Your task to perform on an android device: turn on data saver in the chrome app Image 0: 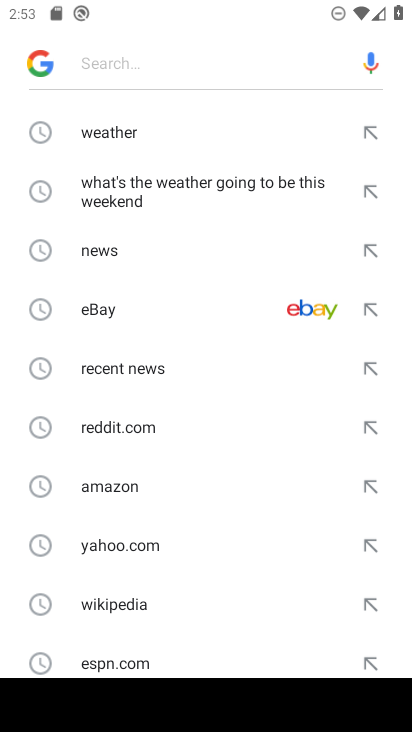
Step 0: press home button
Your task to perform on an android device: turn on data saver in the chrome app Image 1: 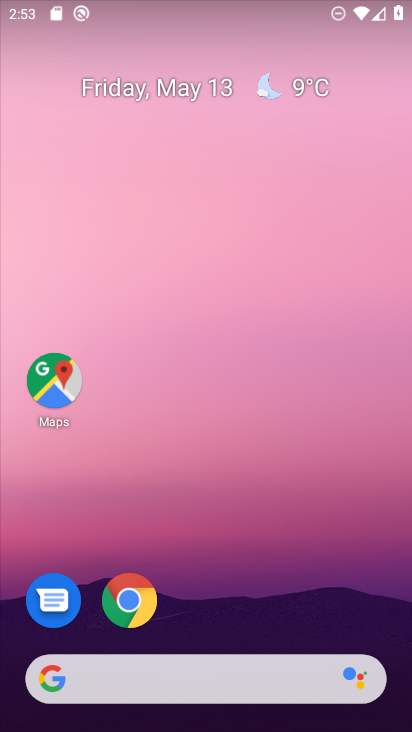
Step 1: click (140, 590)
Your task to perform on an android device: turn on data saver in the chrome app Image 2: 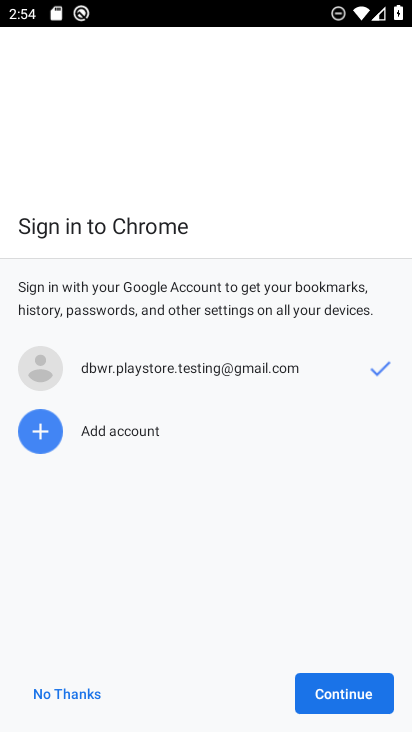
Step 2: click (332, 693)
Your task to perform on an android device: turn on data saver in the chrome app Image 3: 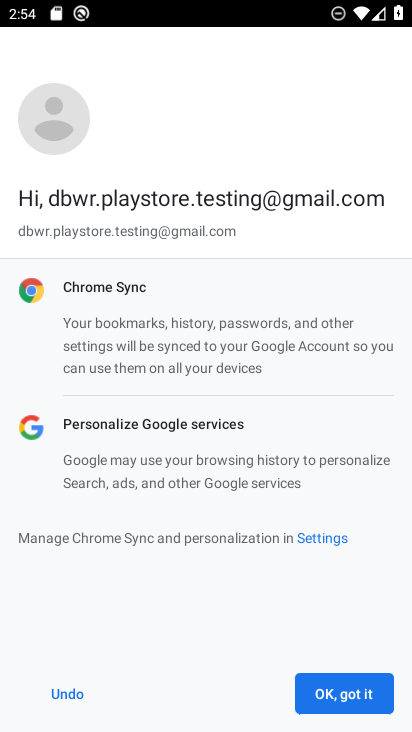
Step 3: click (330, 694)
Your task to perform on an android device: turn on data saver in the chrome app Image 4: 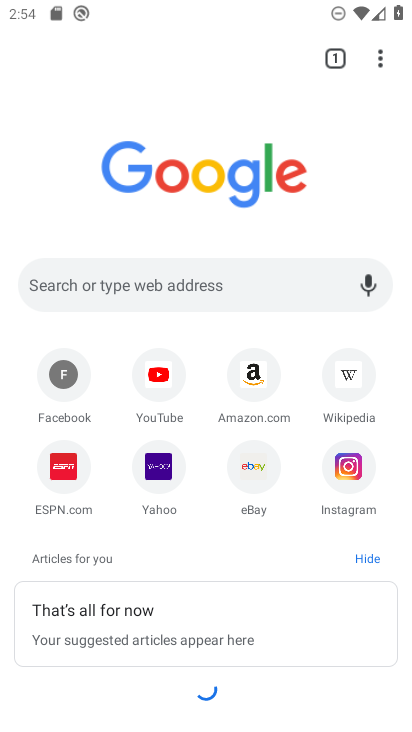
Step 4: click (381, 55)
Your task to perform on an android device: turn on data saver in the chrome app Image 5: 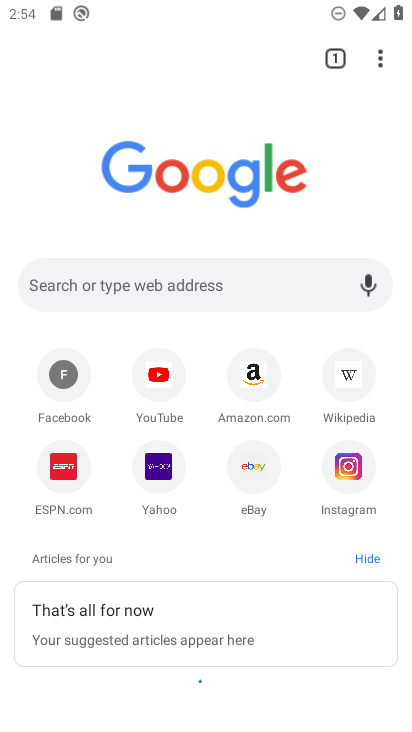
Step 5: click (381, 55)
Your task to perform on an android device: turn on data saver in the chrome app Image 6: 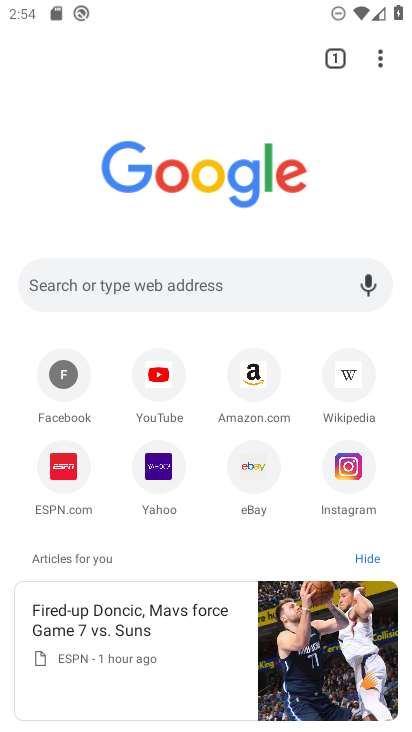
Step 6: click (381, 55)
Your task to perform on an android device: turn on data saver in the chrome app Image 7: 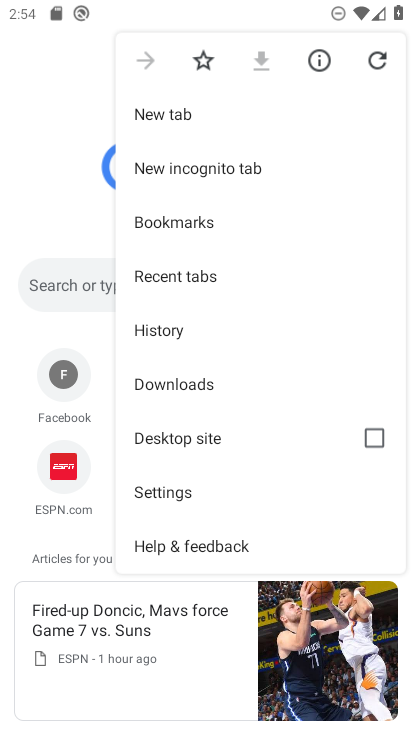
Step 7: click (184, 493)
Your task to perform on an android device: turn on data saver in the chrome app Image 8: 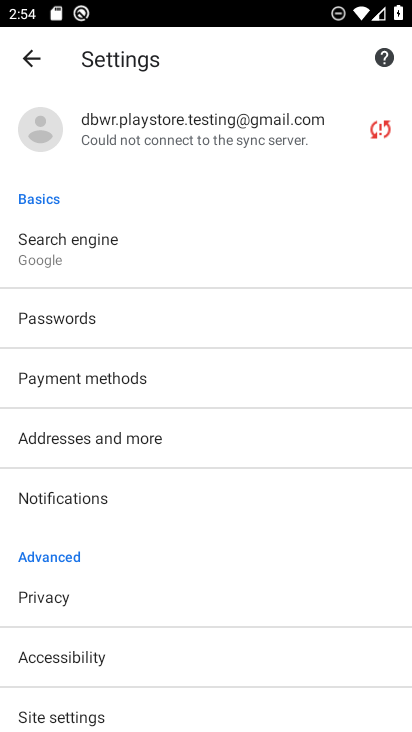
Step 8: drag from (114, 704) to (238, 233)
Your task to perform on an android device: turn on data saver in the chrome app Image 9: 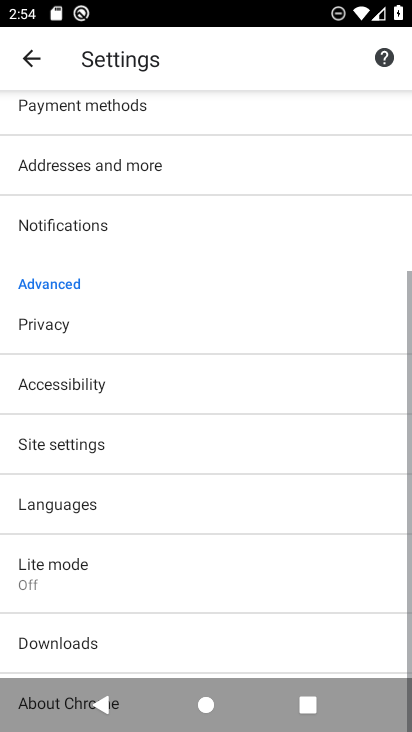
Step 9: click (39, 588)
Your task to perform on an android device: turn on data saver in the chrome app Image 10: 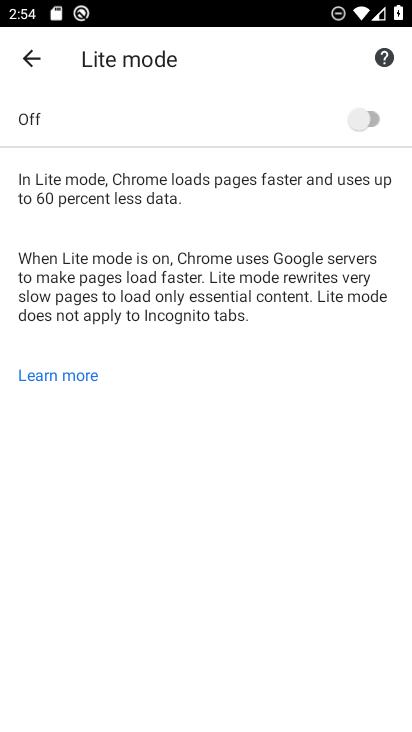
Step 10: click (378, 120)
Your task to perform on an android device: turn on data saver in the chrome app Image 11: 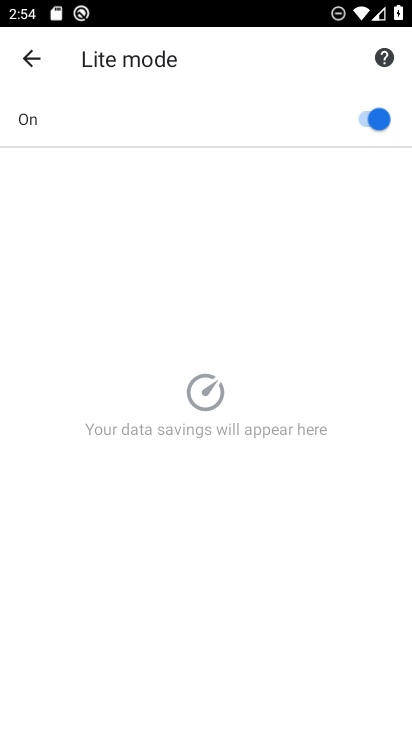
Step 11: task complete